Your task to perform on an android device: Open Reddit.com Image 0: 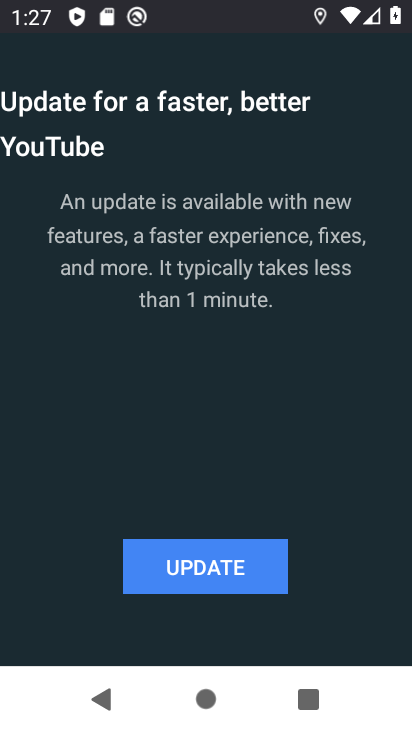
Step 0: press home button
Your task to perform on an android device: Open Reddit.com Image 1: 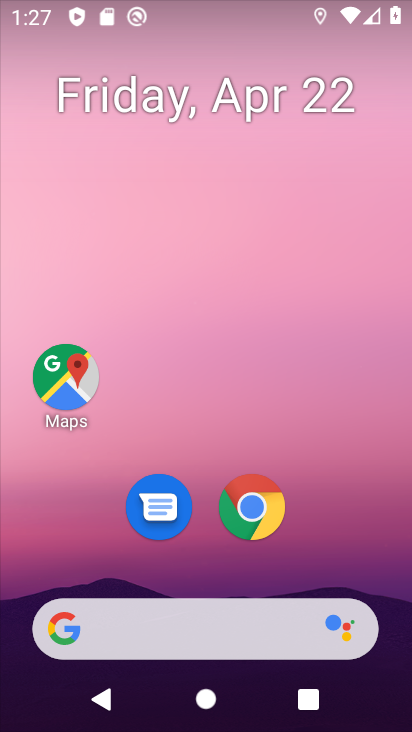
Step 1: drag from (175, 632) to (305, 36)
Your task to perform on an android device: Open Reddit.com Image 2: 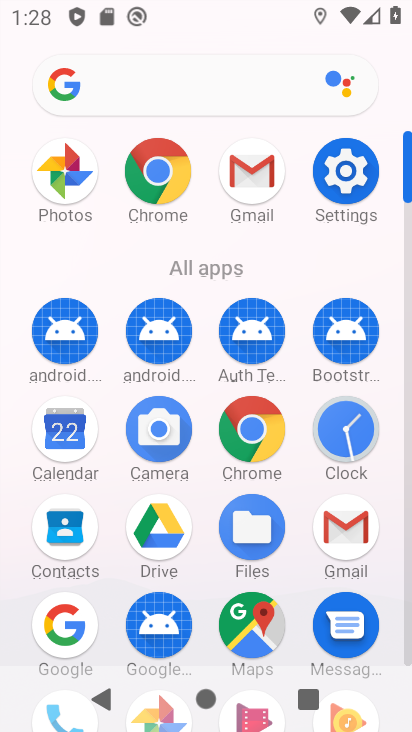
Step 2: click (165, 196)
Your task to perform on an android device: Open Reddit.com Image 3: 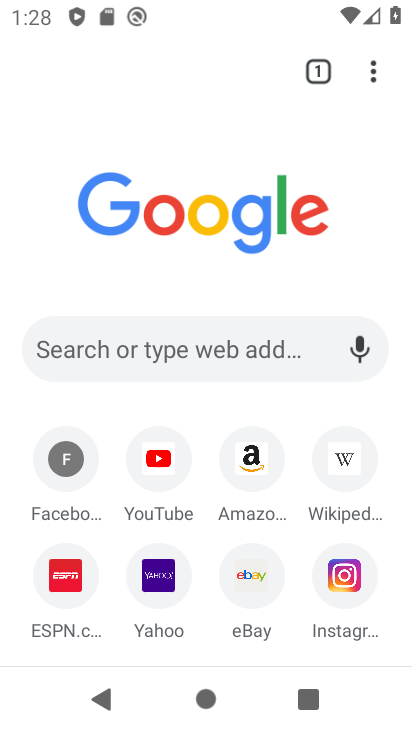
Step 3: click (182, 349)
Your task to perform on an android device: Open Reddit.com Image 4: 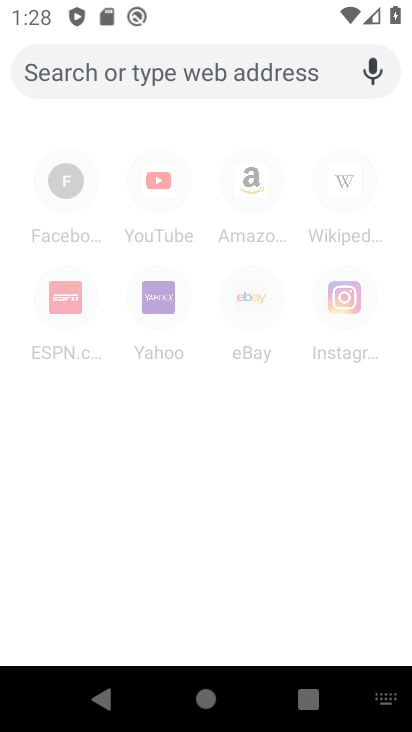
Step 4: type "reddit.com"
Your task to perform on an android device: Open Reddit.com Image 5: 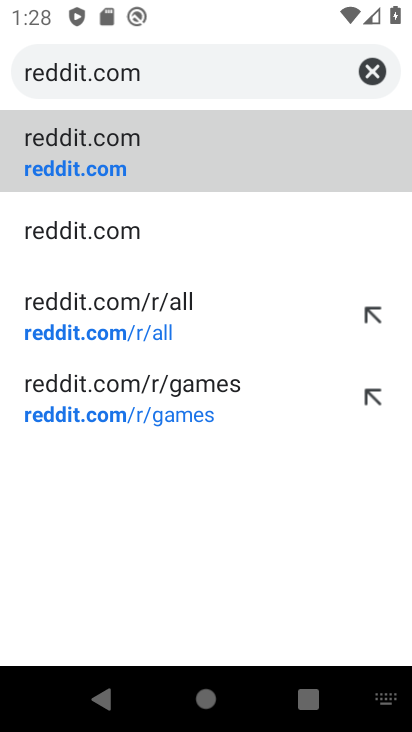
Step 5: click (98, 158)
Your task to perform on an android device: Open Reddit.com Image 6: 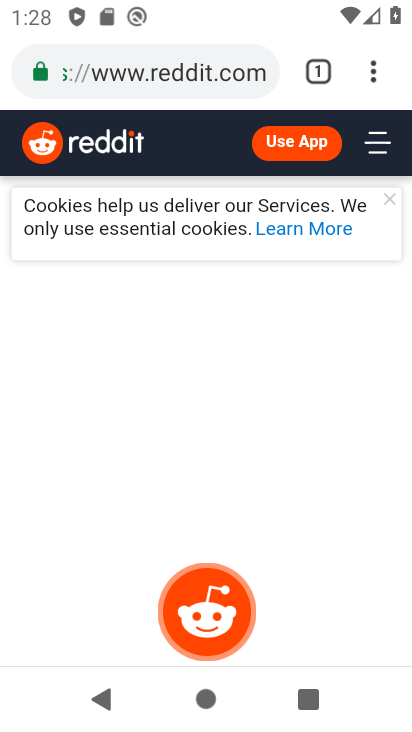
Step 6: task complete